Your task to perform on an android device: Show me recent news Image 0: 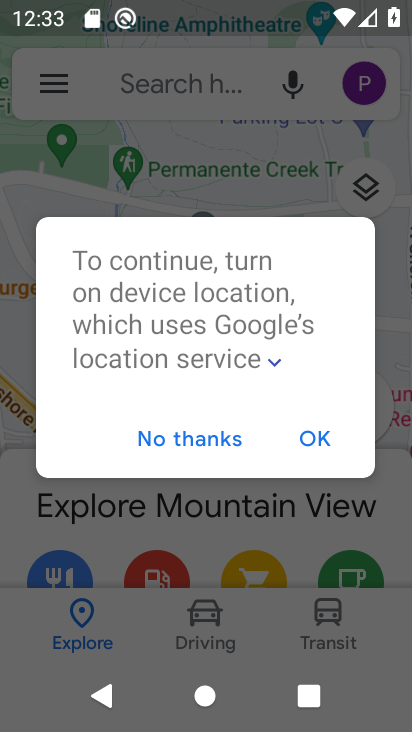
Step 0: press home button
Your task to perform on an android device: Show me recent news Image 1: 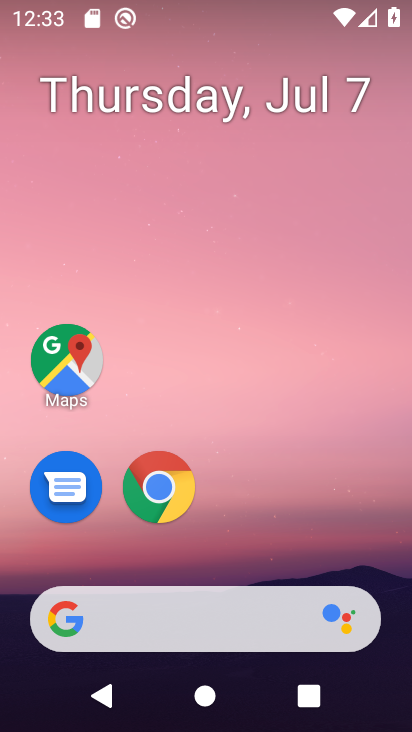
Step 1: task complete